Your task to perform on an android device: Go to sound settings Image 0: 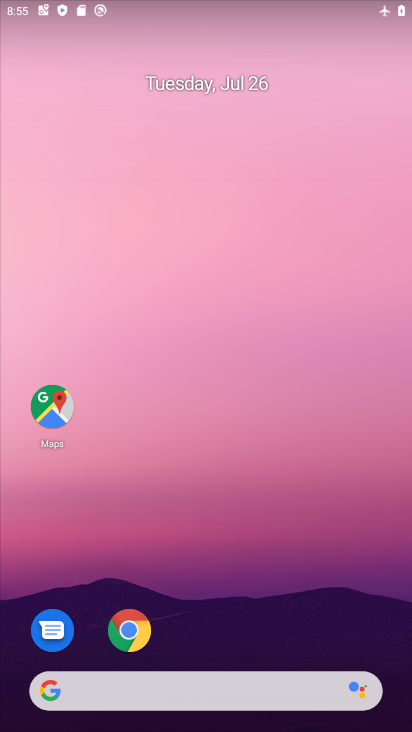
Step 0: drag from (201, 663) to (190, 0)
Your task to perform on an android device: Go to sound settings Image 1: 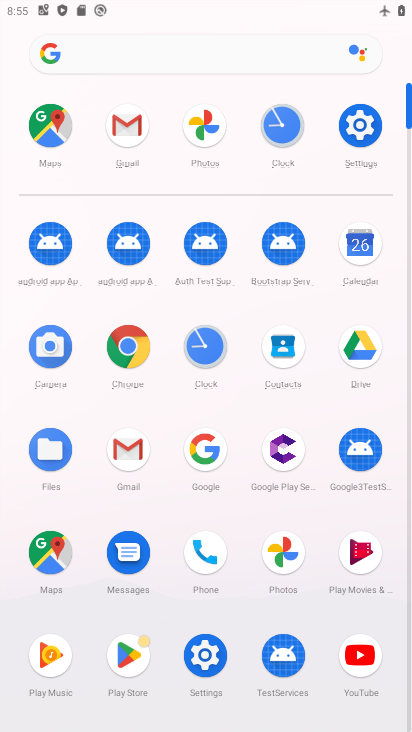
Step 1: click (365, 156)
Your task to perform on an android device: Go to sound settings Image 2: 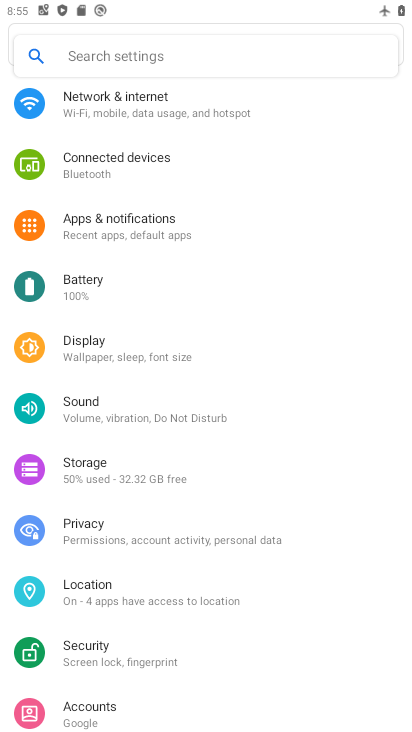
Step 2: click (167, 412)
Your task to perform on an android device: Go to sound settings Image 3: 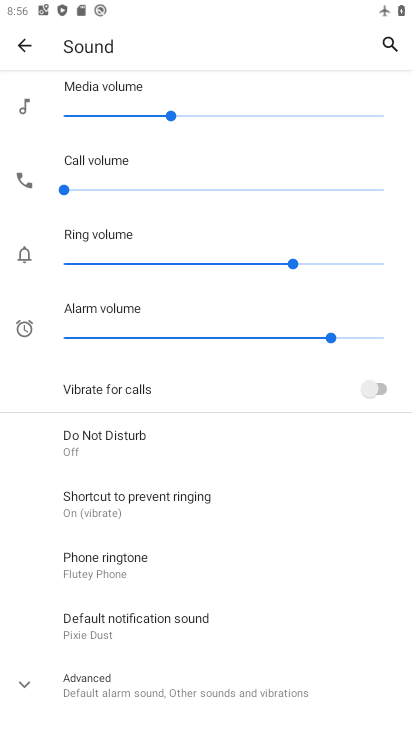
Step 3: task complete